Your task to perform on an android device: check android version Image 0: 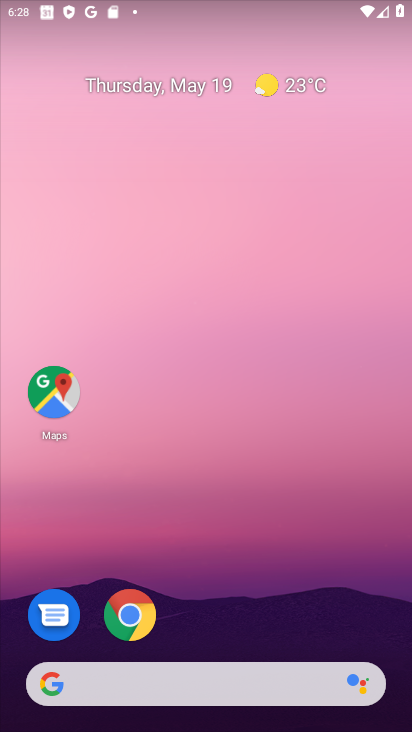
Step 0: drag from (321, 619) to (214, 1)
Your task to perform on an android device: check android version Image 1: 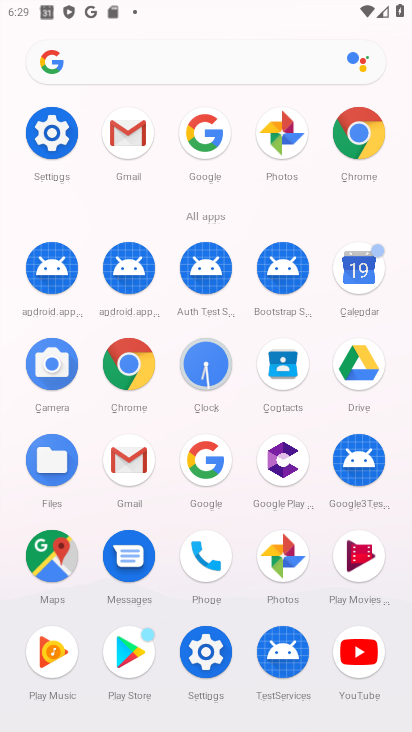
Step 1: click (47, 138)
Your task to perform on an android device: check android version Image 2: 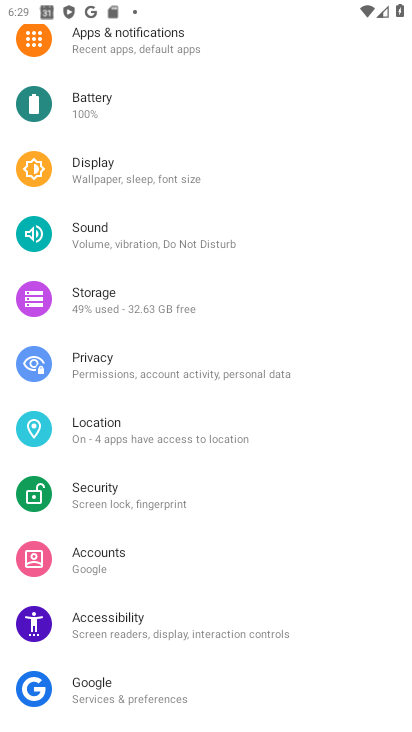
Step 2: drag from (144, 655) to (190, 37)
Your task to perform on an android device: check android version Image 3: 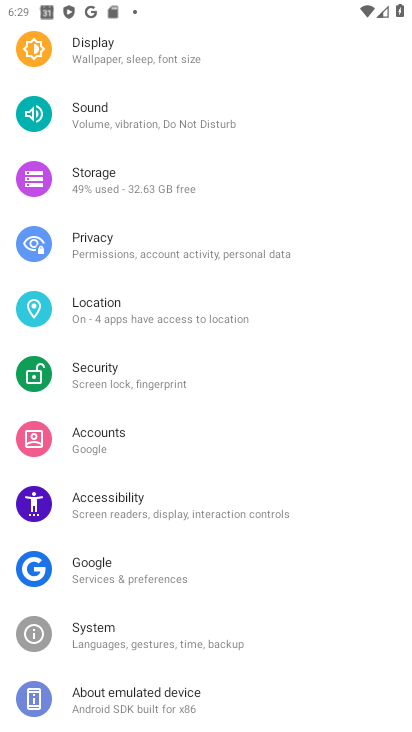
Step 3: click (180, 730)
Your task to perform on an android device: check android version Image 4: 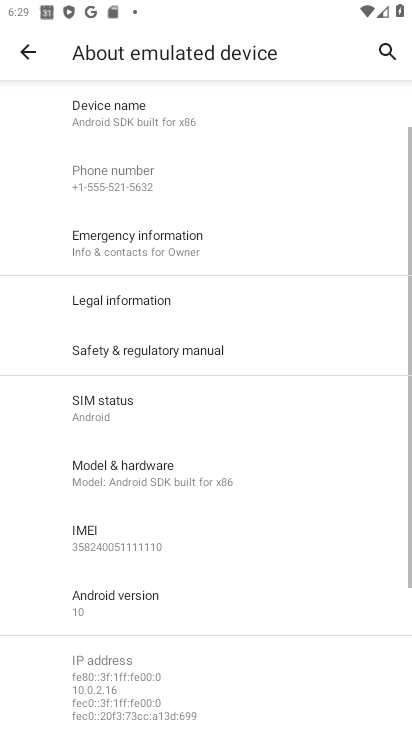
Step 4: click (177, 594)
Your task to perform on an android device: check android version Image 5: 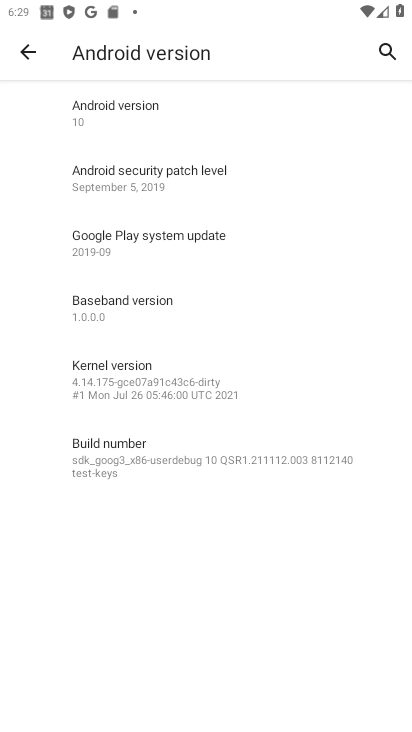
Step 5: task complete